Your task to perform on an android device: Go to Reddit.com Image 0: 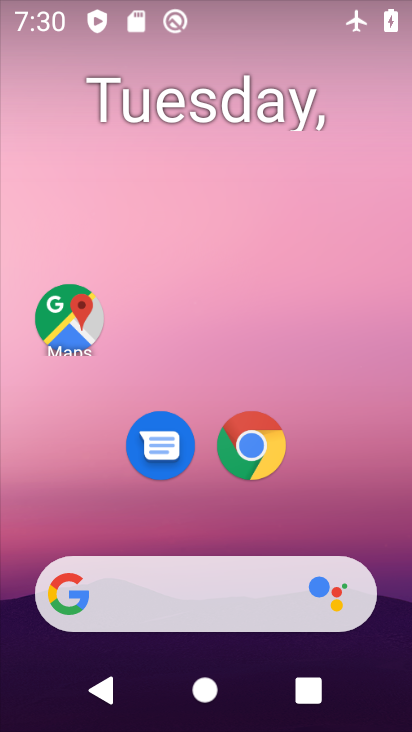
Step 0: click (257, 455)
Your task to perform on an android device: Go to Reddit.com Image 1: 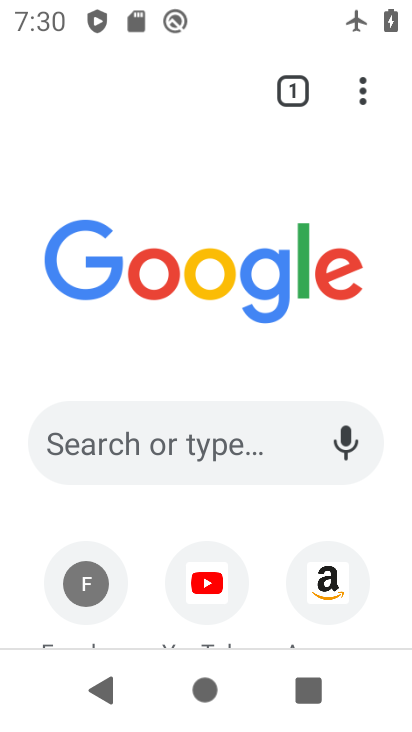
Step 1: drag from (237, 524) to (240, 194)
Your task to perform on an android device: Go to Reddit.com Image 2: 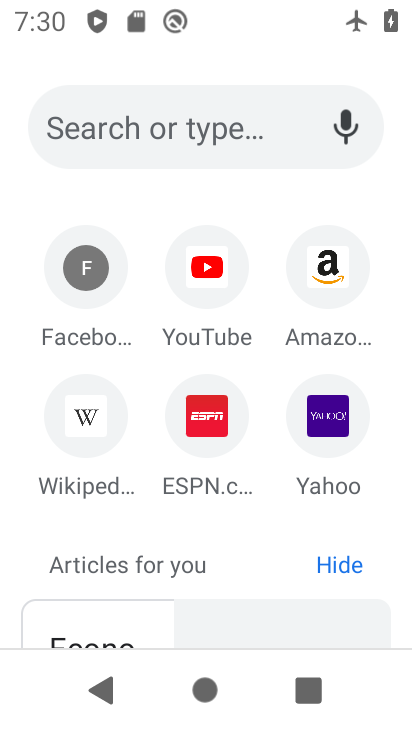
Step 2: click (127, 121)
Your task to perform on an android device: Go to Reddit.com Image 3: 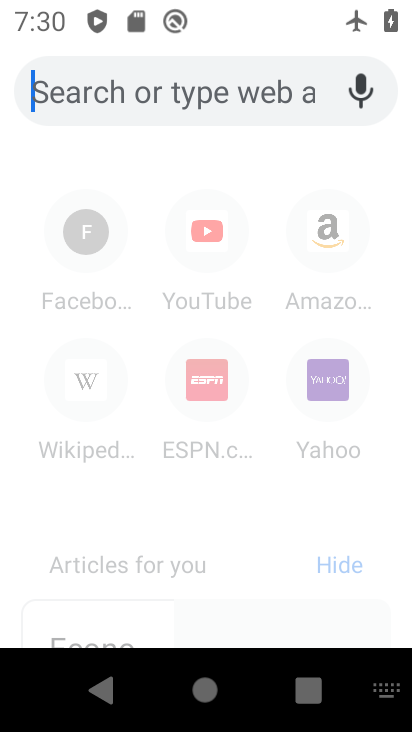
Step 3: type "www.reddit.com"
Your task to perform on an android device: Go to Reddit.com Image 4: 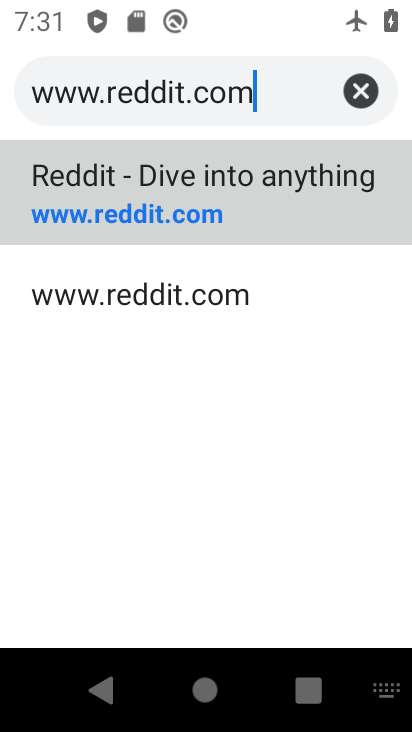
Step 4: click (154, 205)
Your task to perform on an android device: Go to Reddit.com Image 5: 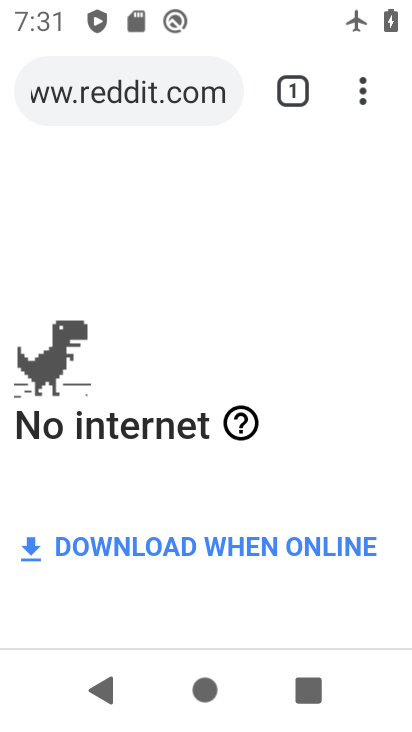
Step 5: task complete